Your task to perform on an android device: refresh tabs in the chrome app Image 0: 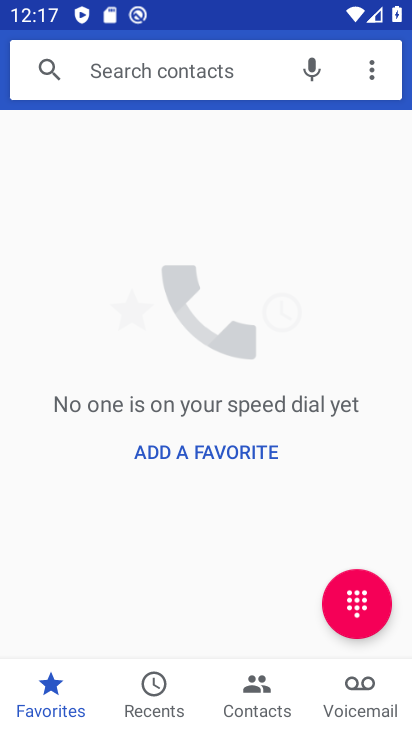
Step 0: press back button
Your task to perform on an android device: refresh tabs in the chrome app Image 1: 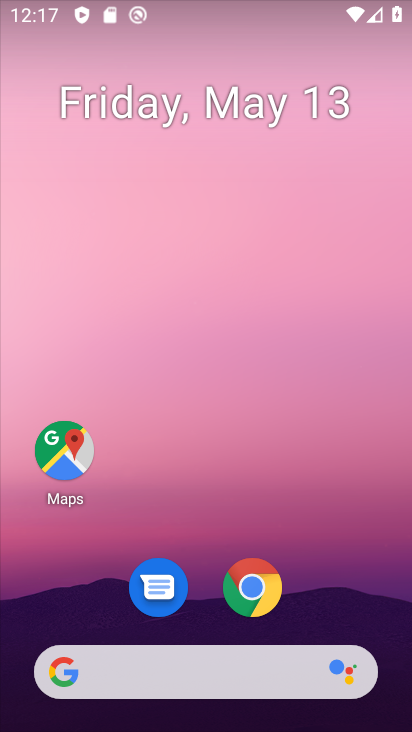
Step 1: click (266, 577)
Your task to perform on an android device: refresh tabs in the chrome app Image 2: 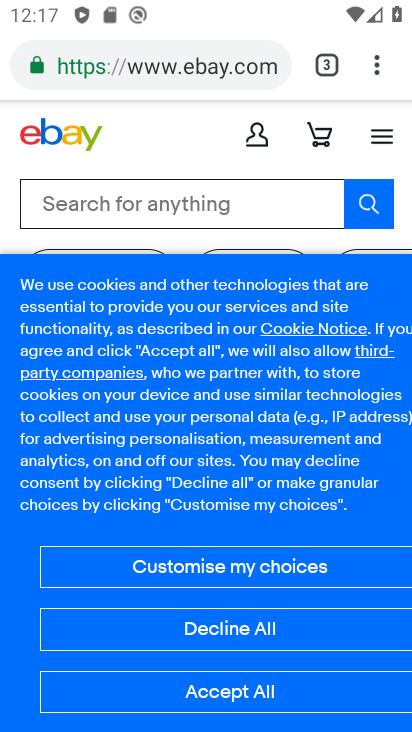
Step 2: click (320, 71)
Your task to perform on an android device: refresh tabs in the chrome app Image 3: 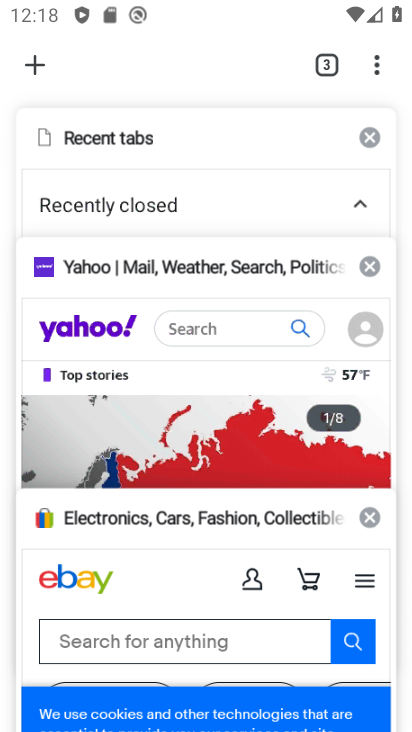
Step 3: click (382, 61)
Your task to perform on an android device: refresh tabs in the chrome app Image 4: 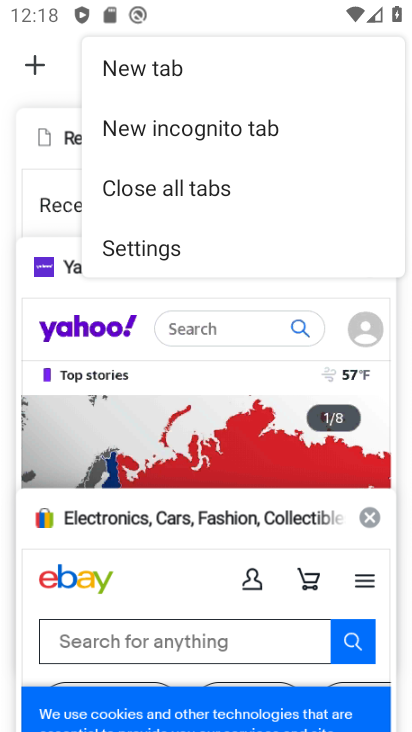
Step 4: click (379, 63)
Your task to perform on an android device: refresh tabs in the chrome app Image 5: 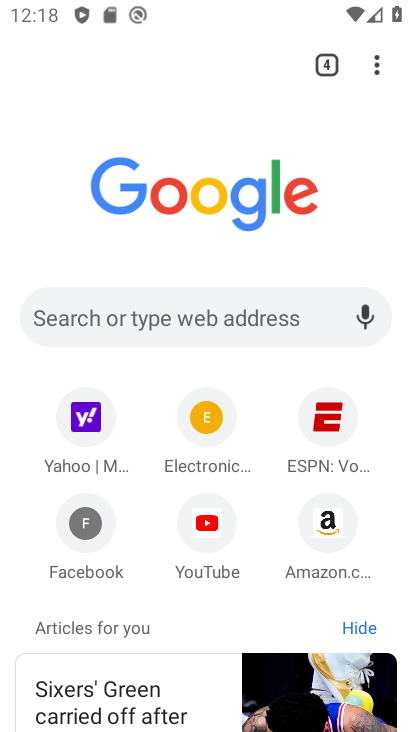
Step 5: click (377, 64)
Your task to perform on an android device: refresh tabs in the chrome app Image 6: 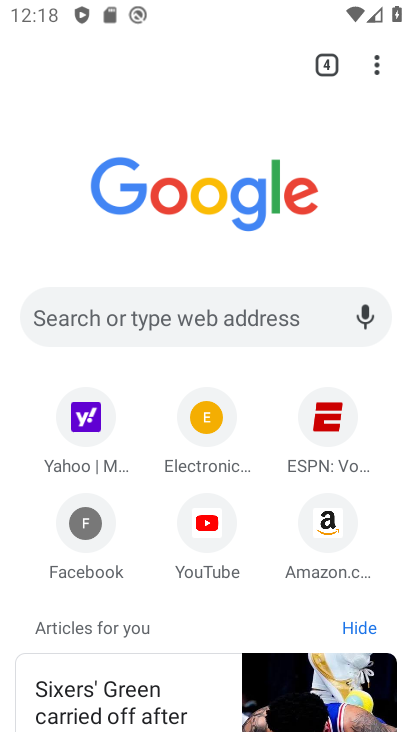
Step 6: task complete